Your task to perform on an android device: delete a single message in the gmail app Image 0: 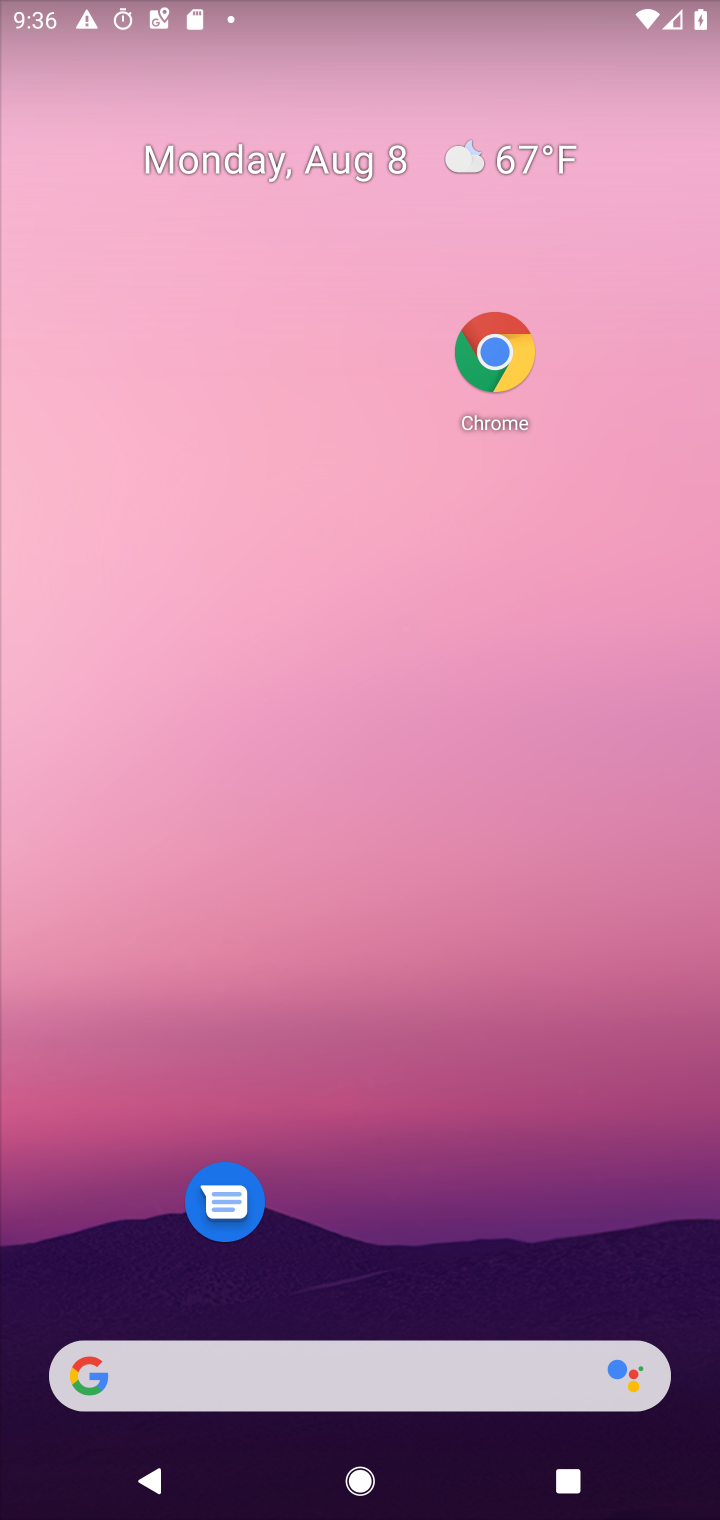
Step 0: drag from (549, 1292) to (680, 225)
Your task to perform on an android device: delete a single message in the gmail app Image 1: 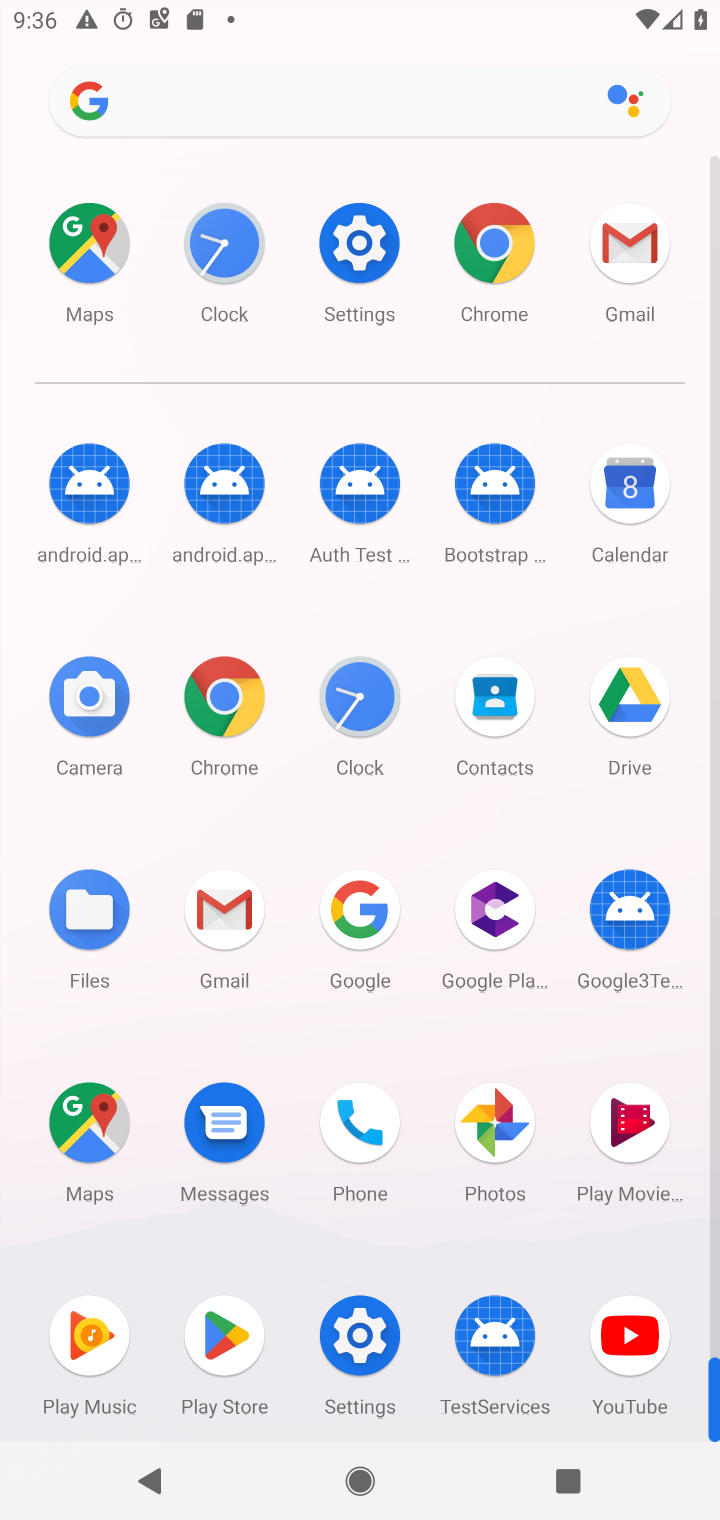
Step 1: click (229, 930)
Your task to perform on an android device: delete a single message in the gmail app Image 2: 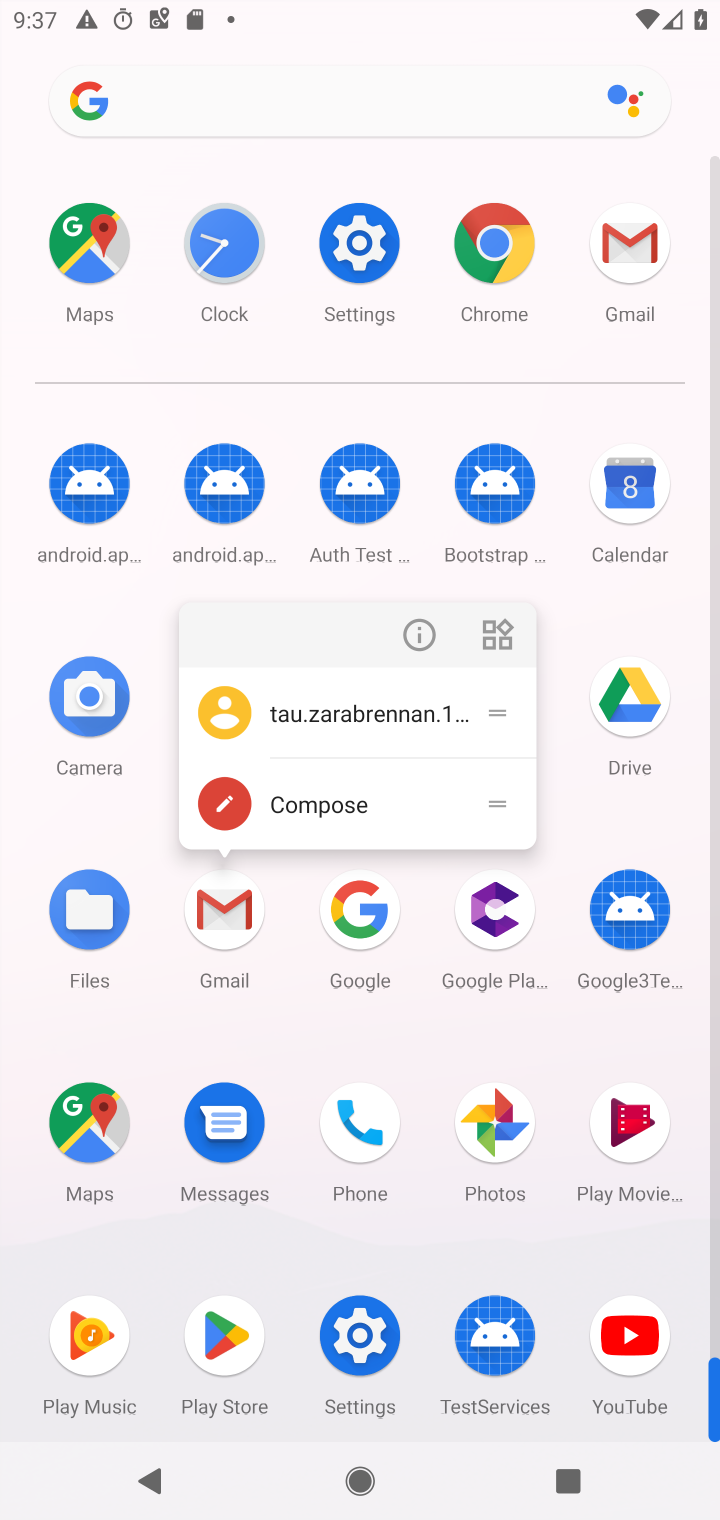
Step 2: click (253, 968)
Your task to perform on an android device: delete a single message in the gmail app Image 3: 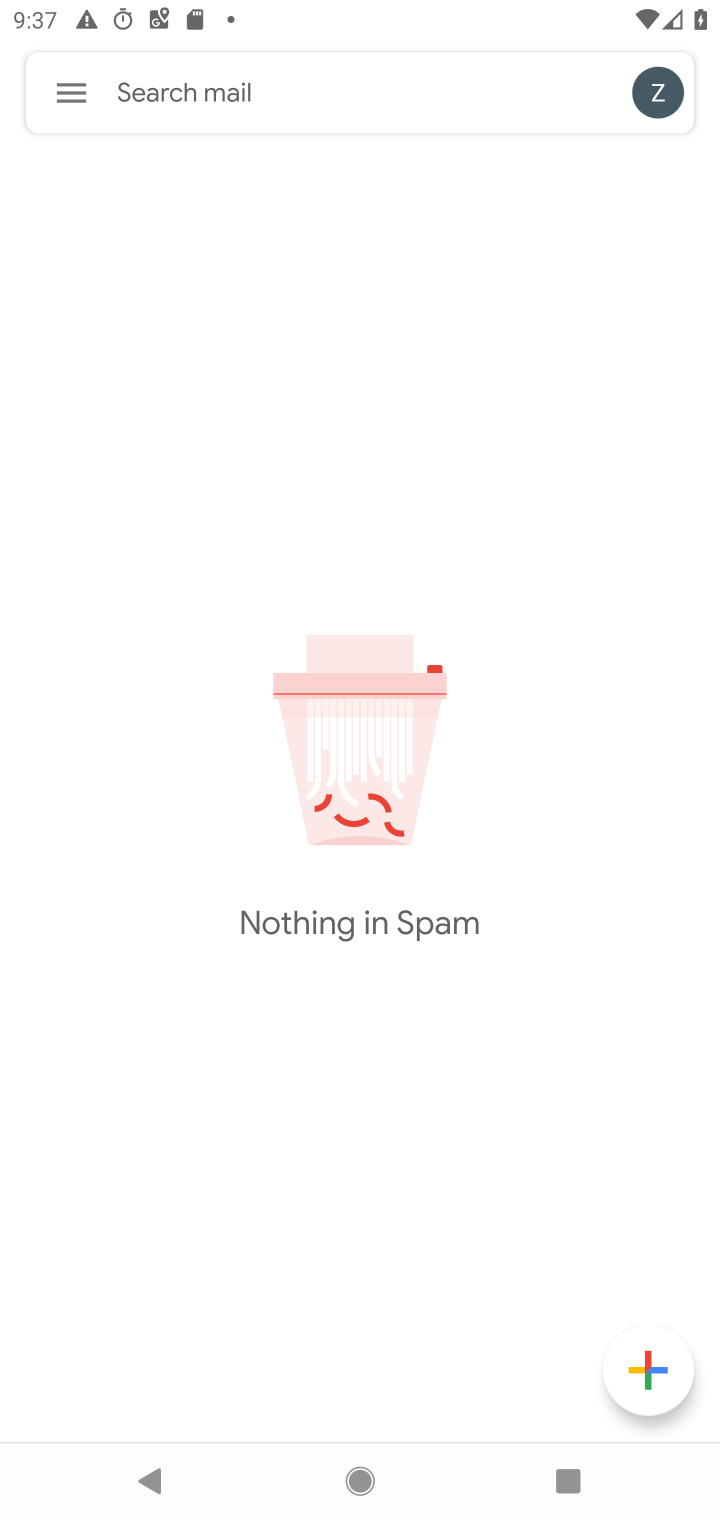
Step 3: click (71, 104)
Your task to perform on an android device: delete a single message in the gmail app Image 4: 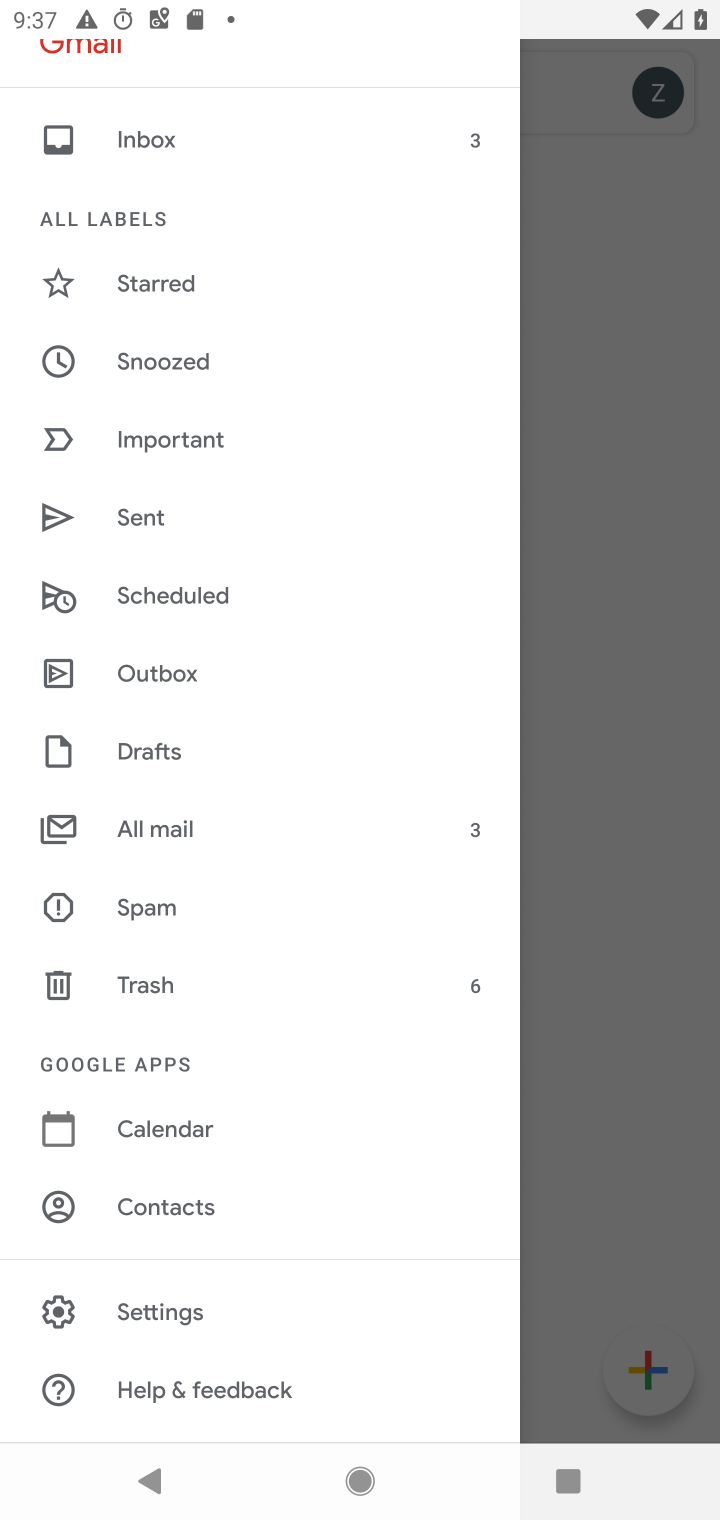
Step 4: click (96, 823)
Your task to perform on an android device: delete a single message in the gmail app Image 5: 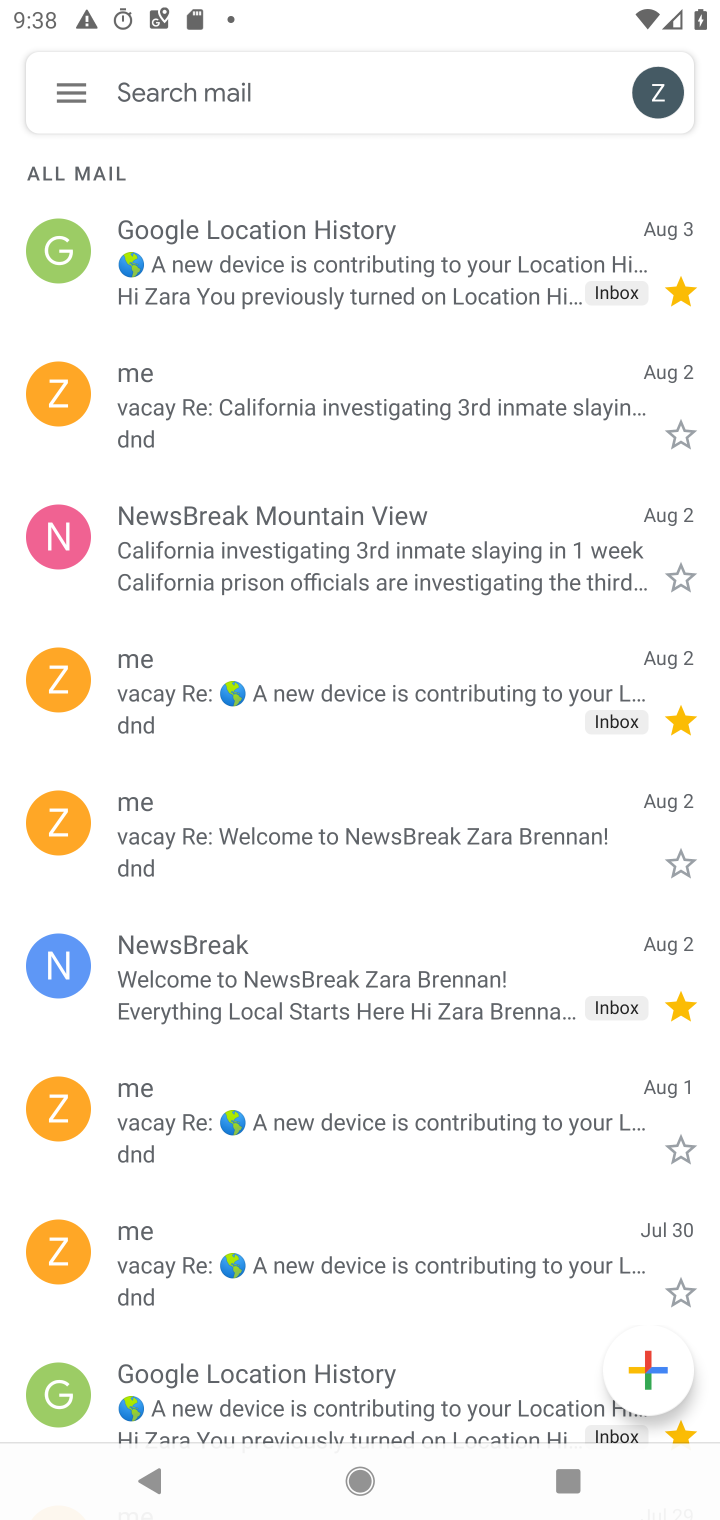
Step 5: click (312, 264)
Your task to perform on an android device: delete a single message in the gmail app Image 6: 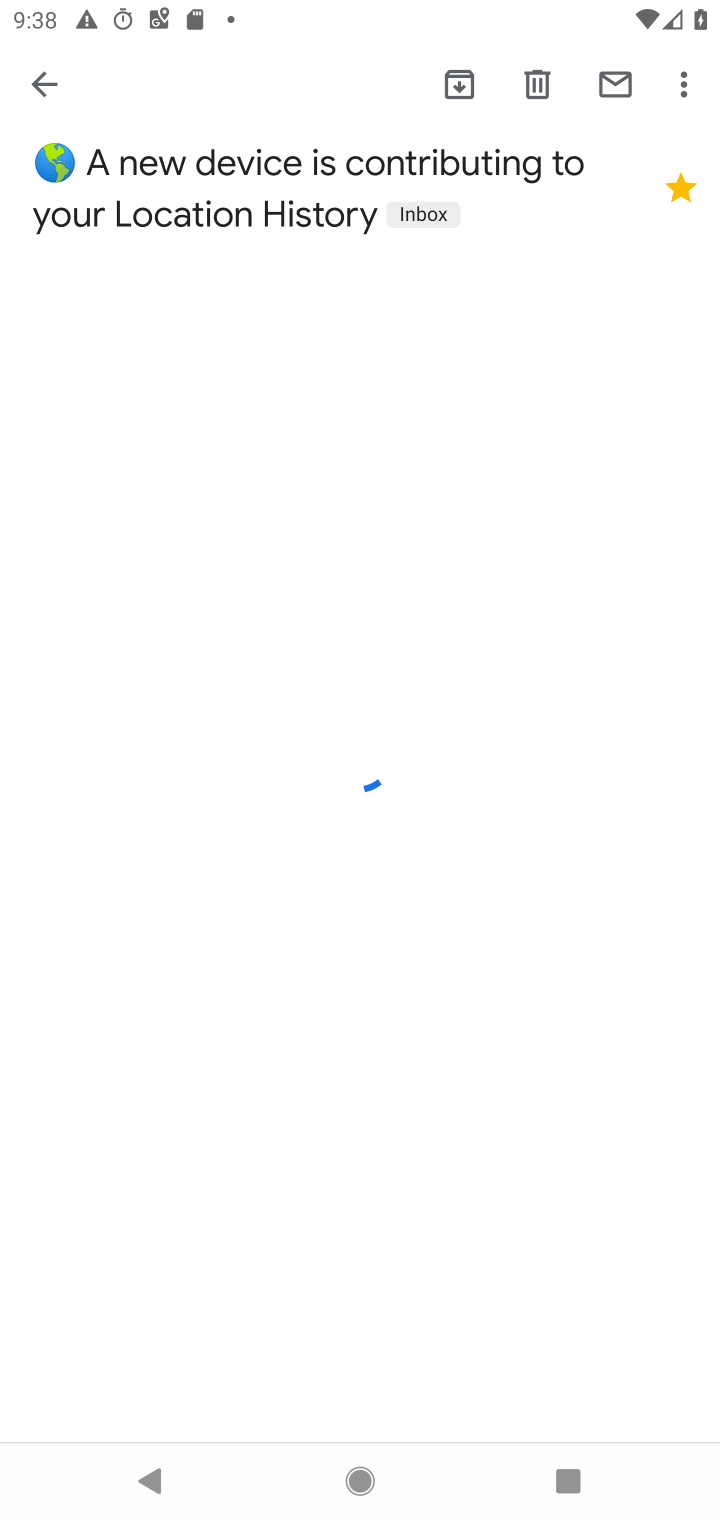
Step 6: click (530, 95)
Your task to perform on an android device: delete a single message in the gmail app Image 7: 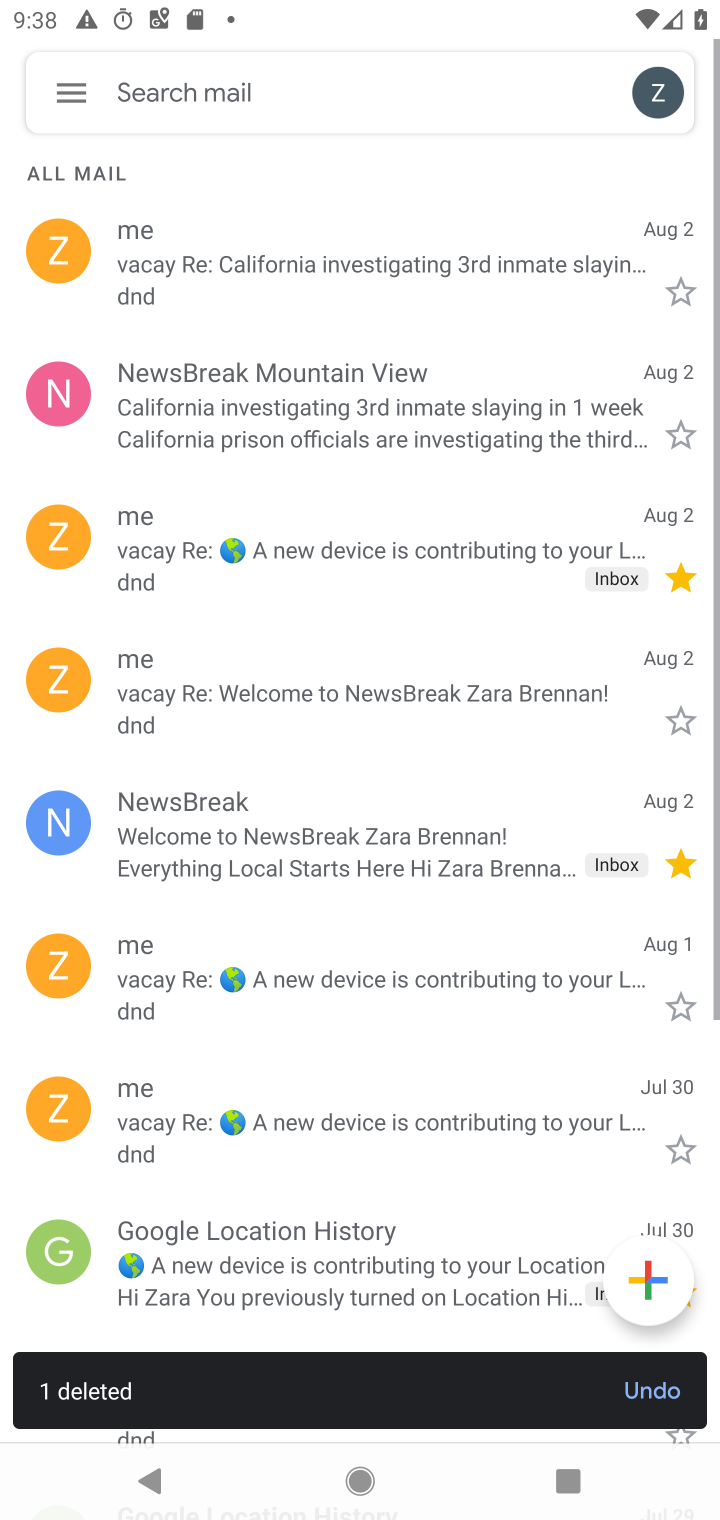
Step 7: task complete